Your task to perform on an android device: change keyboard looks Image 0: 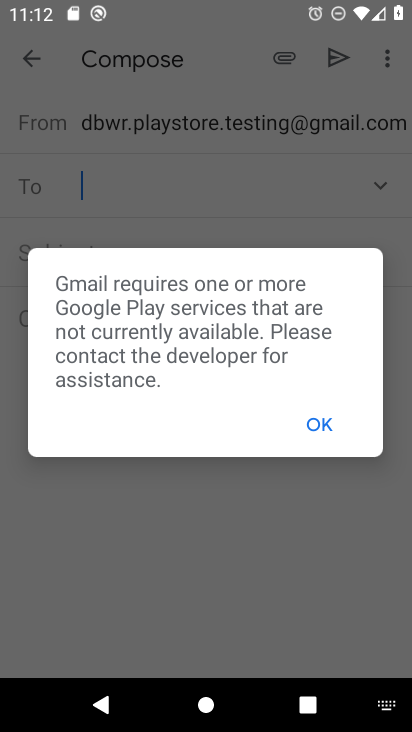
Step 0: press back button
Your task to perform on an android device: change keyboard looks Image 1: 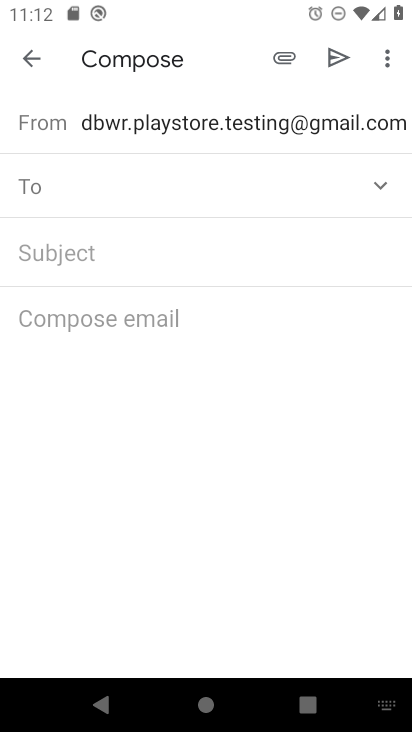
Step 1: press back button
Your task to perform on an android device: change keyboard looks Image 2: 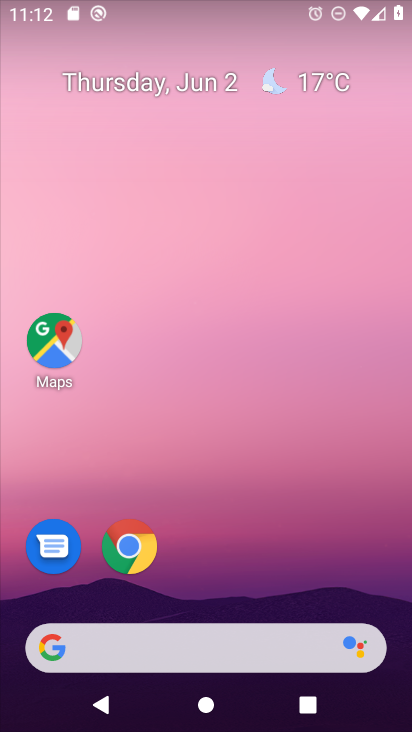
Step 2: drag from (257, 274) to (237, 34)
Your task to perform on an android device: change keyboard looks Image 3: 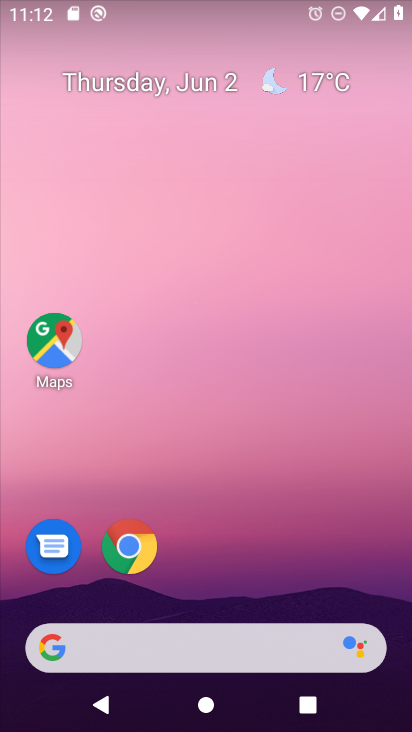
Step 3: drag from (242, 448) to (233, 0)
Your task to perform on an android device: change keyboard looks Image 4: 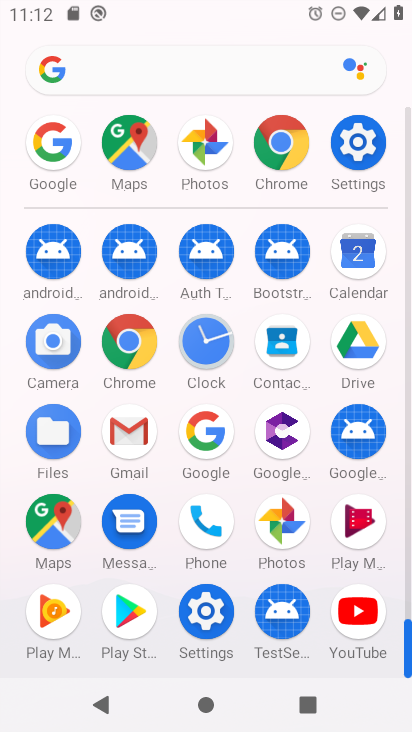
Step 4: click (357, 138)
Your task to perform on an android device: change keyboard looks Image 5: 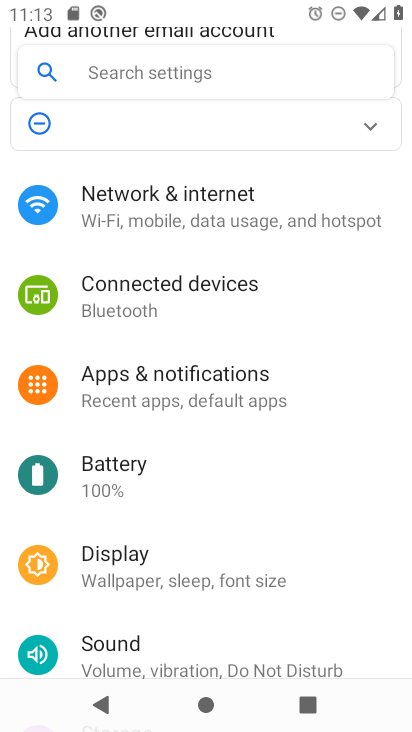
Step 5: drag from (264, 607) to (289, 118)
Your task to perform on an android device: change keyboard looks Image 6: 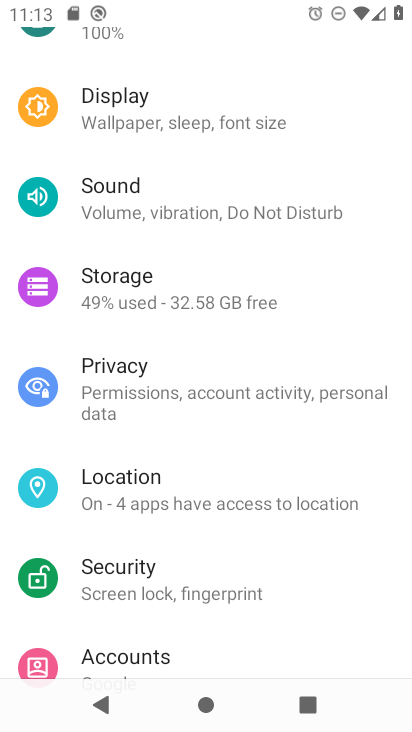
Step 6: drag from (271, 590) to (308, 116)
Your task to perform on an android device: change keyboard looks Image 7: 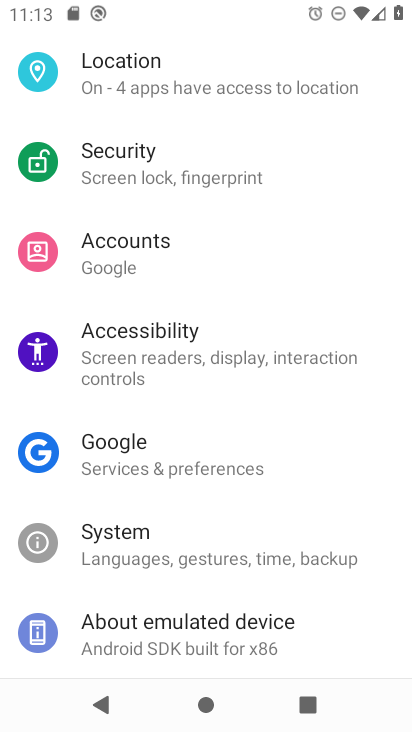
Step 7: drag from (252, 497) to (265, 163)
Your task to perform on an android device: change keyboard looks Image 8: 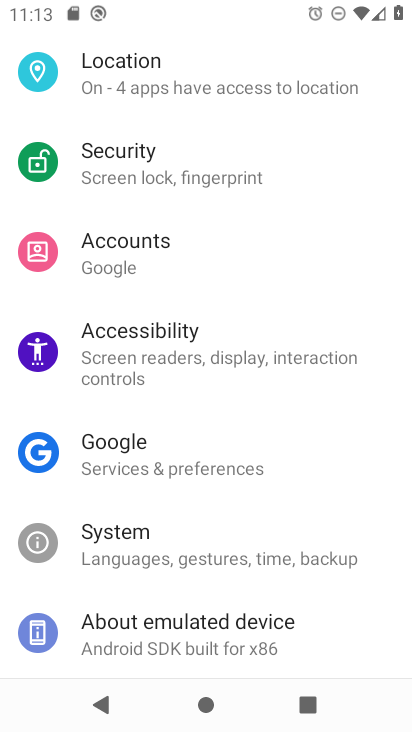
Step 8: click (216, 548)
Your task to perform on an android device: change keyboard looks Image 9: 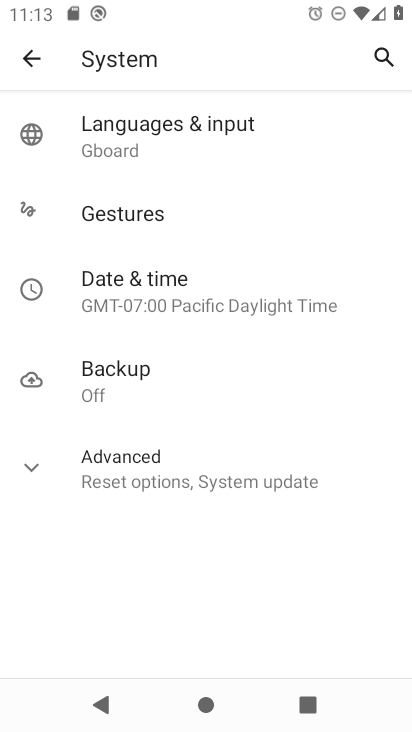
Step 9: click (192, 149)
Your task to perform on an android device: change keyboard looks Image 10: 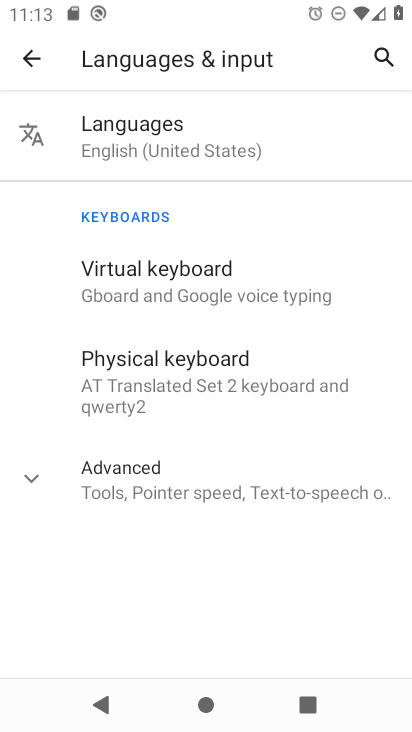
Step 10: click (195, 302)
Your task to perform on an android device: change keyboard looks Image 11: 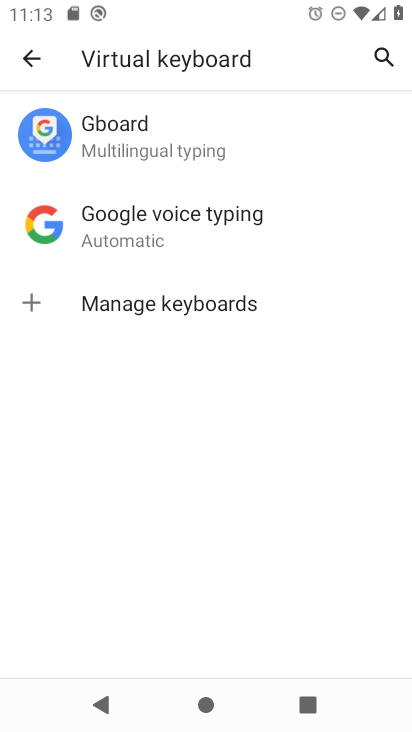
Step 11: click (207, 127)
Your task to perform on an android device: change keyboard looks Image 12: 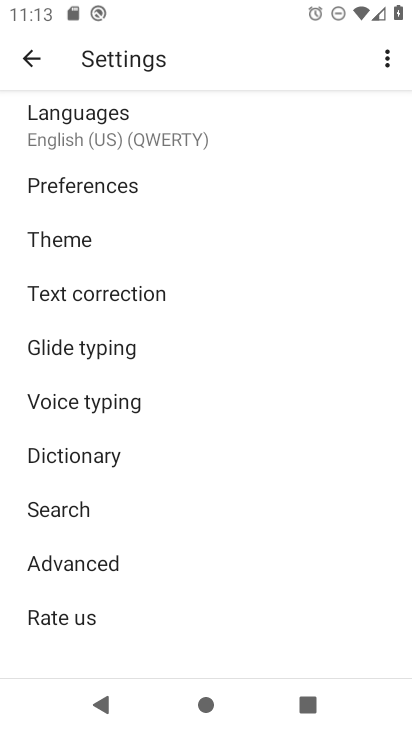
Step 12: click (131, 237)
Your task to perform on an android device: change keyboard looks Image 13: 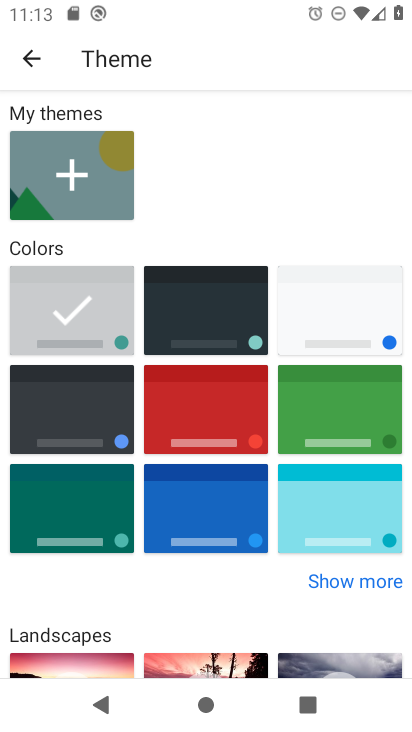
Step 13: click (228, 393)
Your task to perform on an android device: change keyboard looks Image 14: 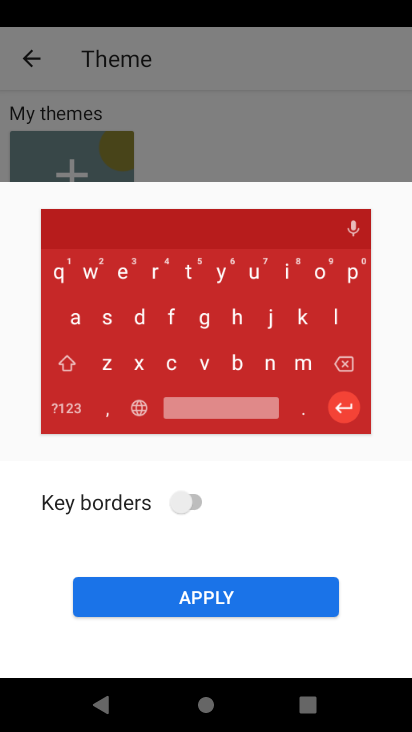
Step 14: click (219, 608)
Your task to perform on an android device: change keyboard looks Image 15: 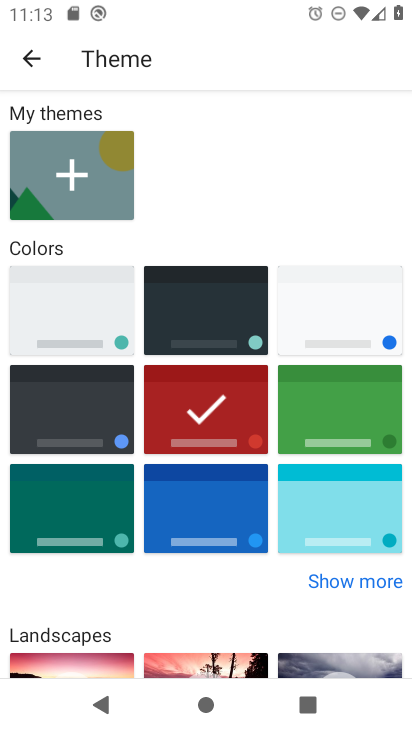
Step 15: task complete